Your task to perform on an android device: turn notification dots on Image 0: 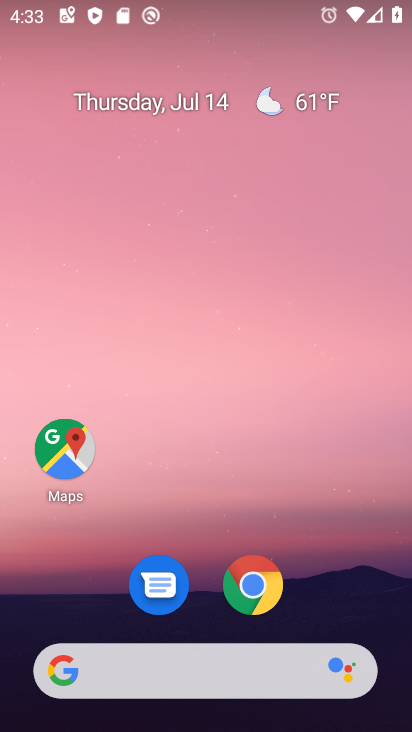
Step 0: drag from (219, 483) to (249, 45)
Your task to perform on an android device: turn notification dots on Image 1: 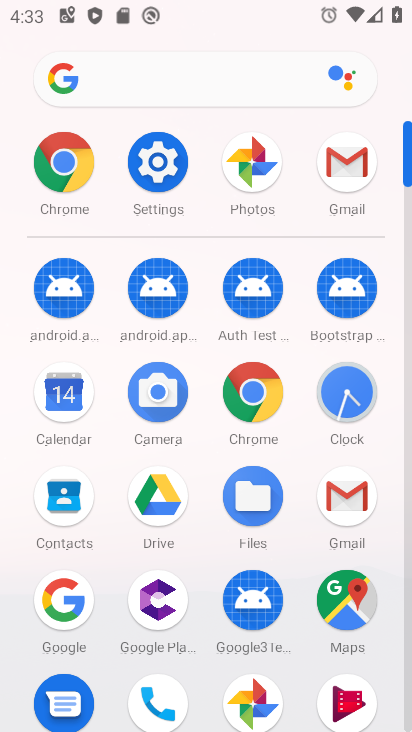
Step 1: click (178, 161)
Your task to perform on an android device: turn notification dots on Image 2: 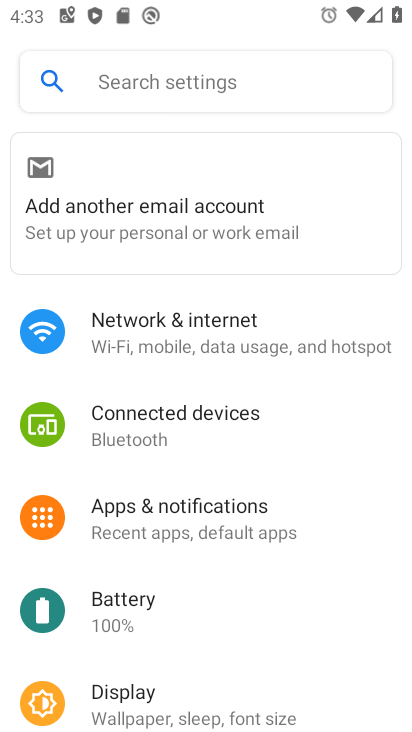
Step 2: click (209, 523)
Your task to perform on an android device: turn notification dots on Image 3: 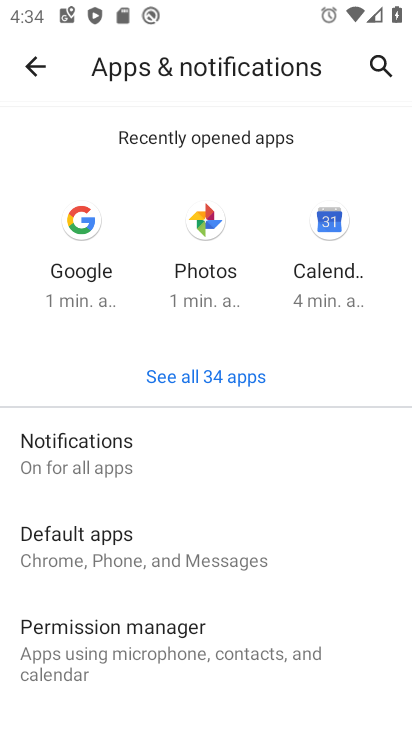
Step 3: click (123, 448)
Your task to perform on an android device: turn notification dots on Image 4: 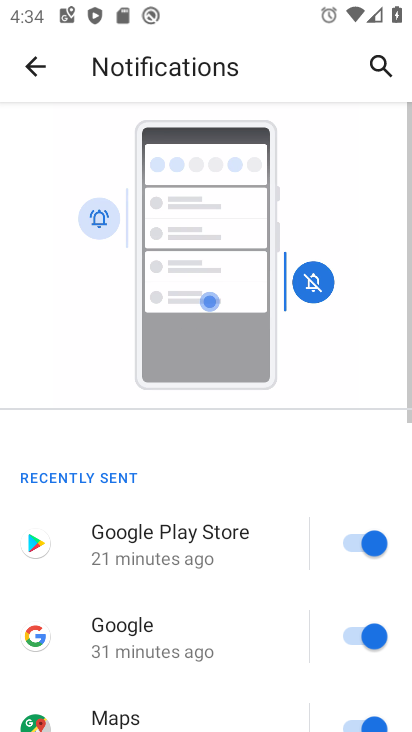
Step 4: drag from (260, 618) to (296, 73)
Your task to perform on an android device: turn notification dots on Image 5: 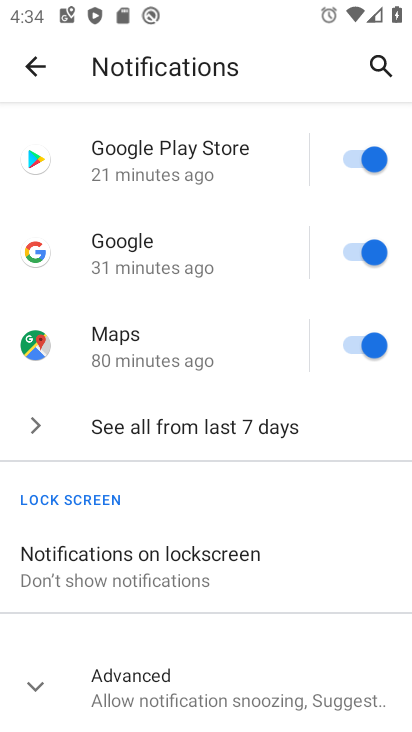
Step 5: click (241, 566)
Your task to perform on an android device: turn notification dots on Image 6: 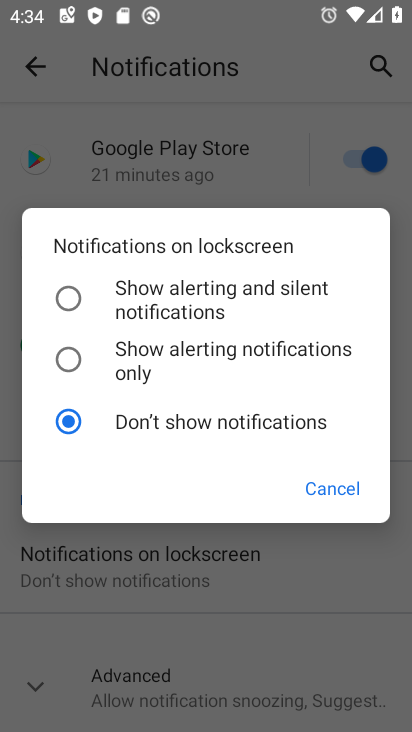
Step 6: click (320, 487)
Your task to perform on an android device: turn notification dots on Image 7: 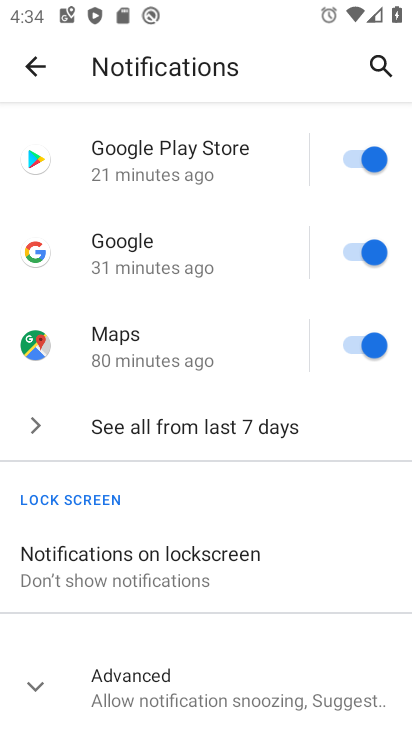
Step 7: click (41, 688)
Your task to perform on an android device: turn notification dots on Image 8: 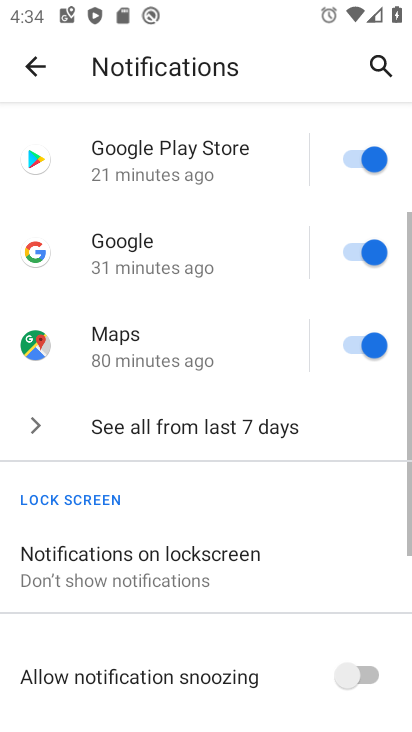
Step 8: drag from (198, 604) to (208, 215)
Your task to perform on an android device: turn notification dots on Image 9: 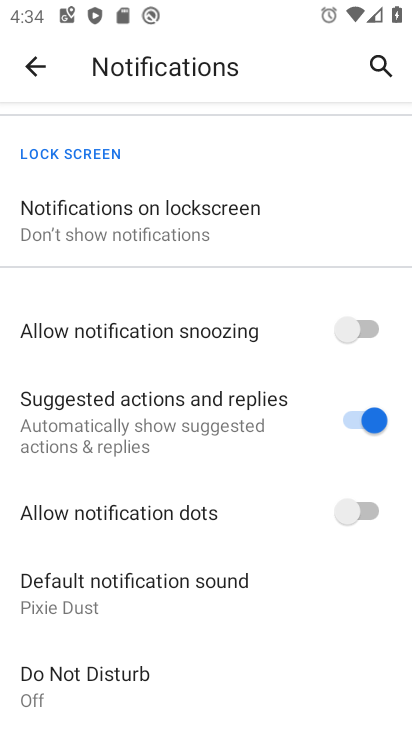
Step 9: click (366, 508)
Your task to perform on an android device: turn notification dots on Image 10: 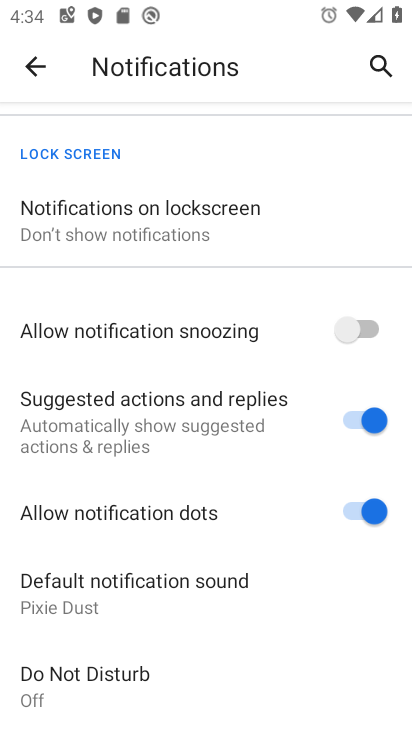
Step 10: task complete